Your task to perform on an android device: Do I have any events tomorrow? Image 0: 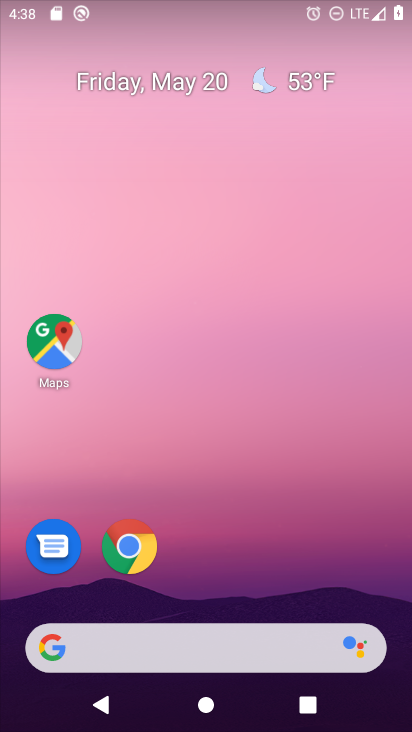
Step 0: drag from (267, 565) to (291, 159)
Your task to perform on an android device: Do I have any events tomorrow? Image 1: 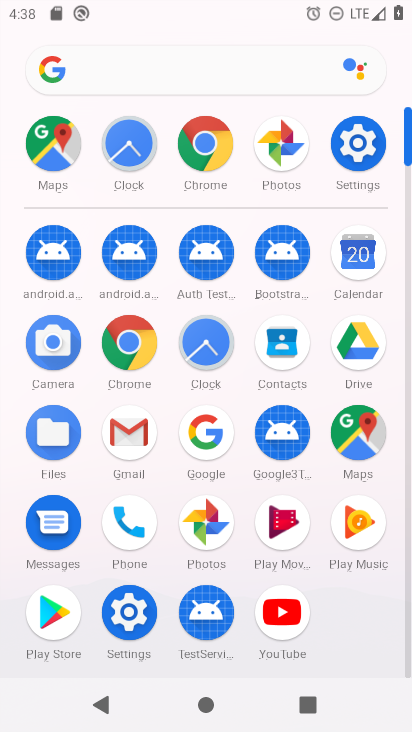
Step 1: click (208, 148)
Your task to perform on an android device: Do I have any events tomorrow? Image 2: 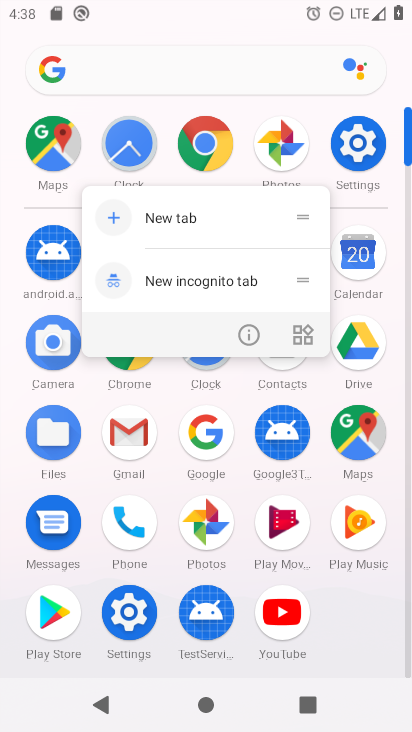
Step 2: click (363, 257)
Your task to perform on an android device: Do I have any events tomorrow? Image 3: 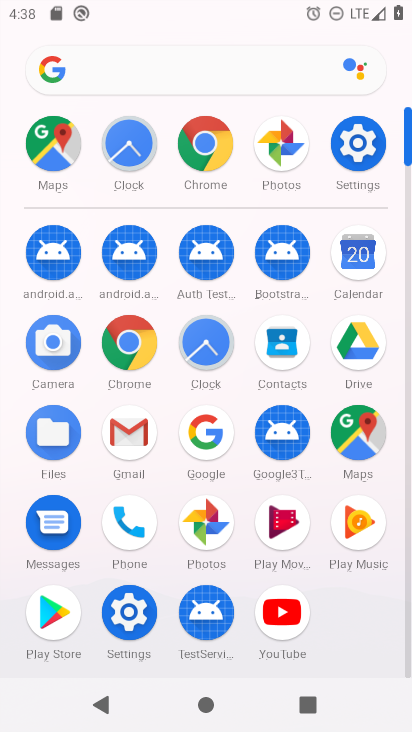
Step 3: click (363, 257)
Your task to perform on an android device: Do I have any events tomorrow? Image 4: 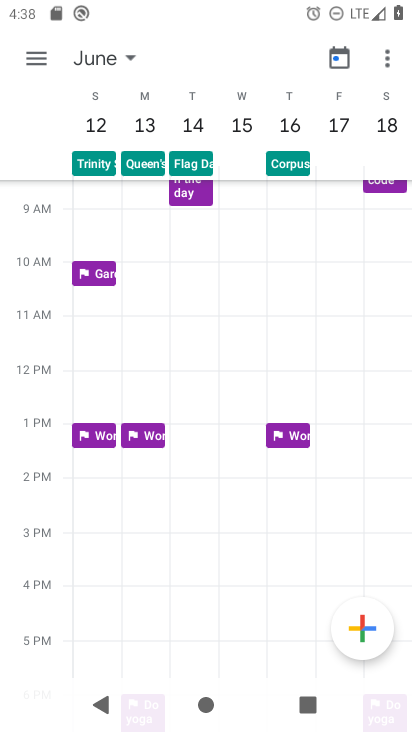
Step 4: click (116, 52)
Your task to perform on an android device: Do I have any events tomorrow? Image 5: 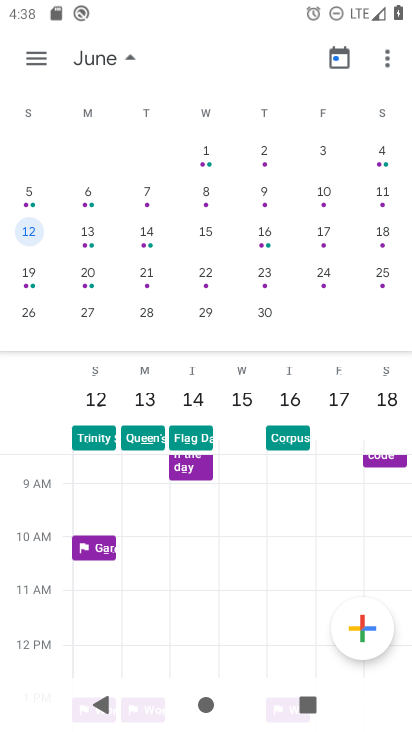
Step 5: drag from (34, 239) to (359, 233)
Your task to perform on an android device: Do I have any events tomorrow? Image 6: 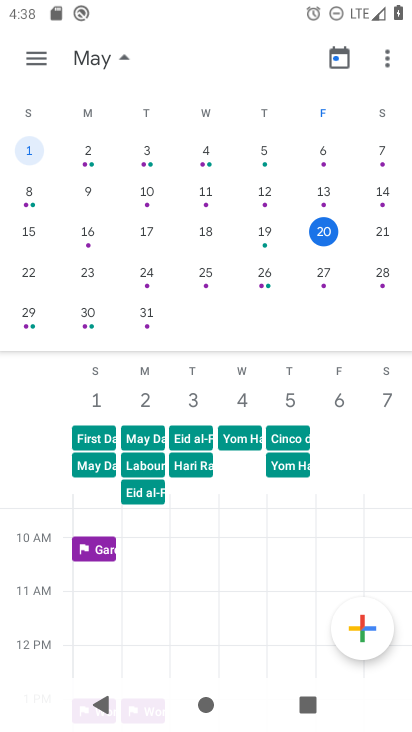
Step 6: click (323, 231)
Your task to perform on an android device: Do I have any events tomorrow? Image 7: 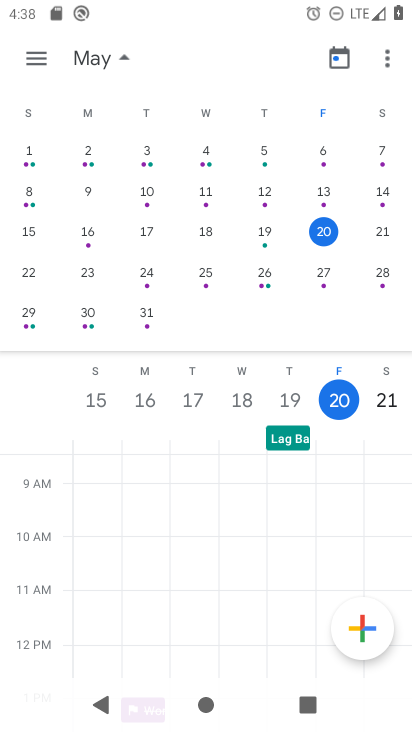
Step 7: click (385, 230)
Your task to perform on an android device: Do I have any events tomorrow? Image 8: 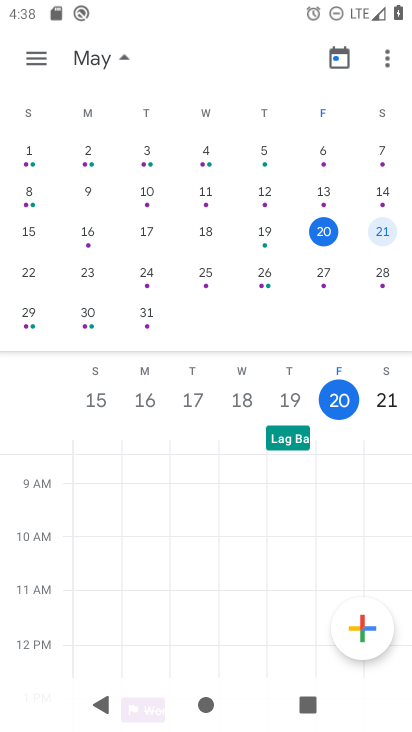
Step 8: drag from (349, 454) to (358, 193)
Your task to perform on an android device: Do I have any events tomorrow? Image 9: 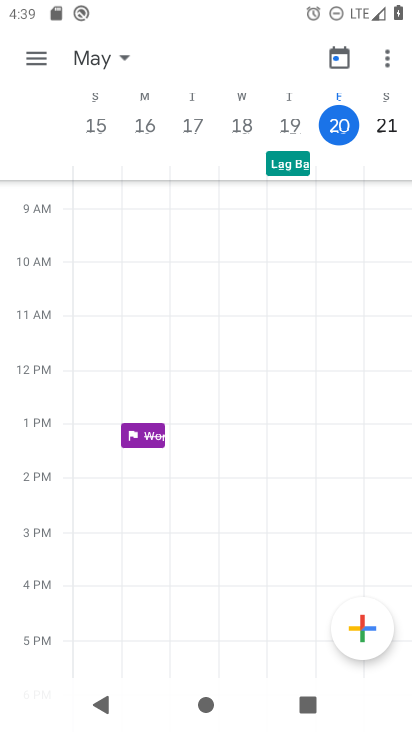
Step 9: click (391, 135)
Your task to perform on an android device: Do I have any events tomorrow? Image 10: 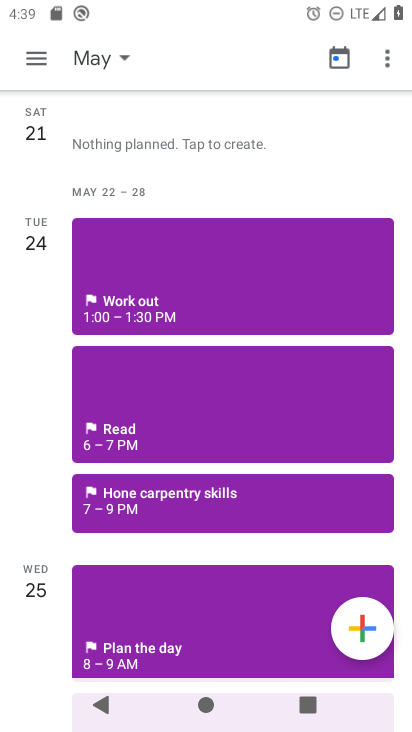
Step 10: task complete